Your task to perform on an android device: toggle improve location accuracy Image 0: 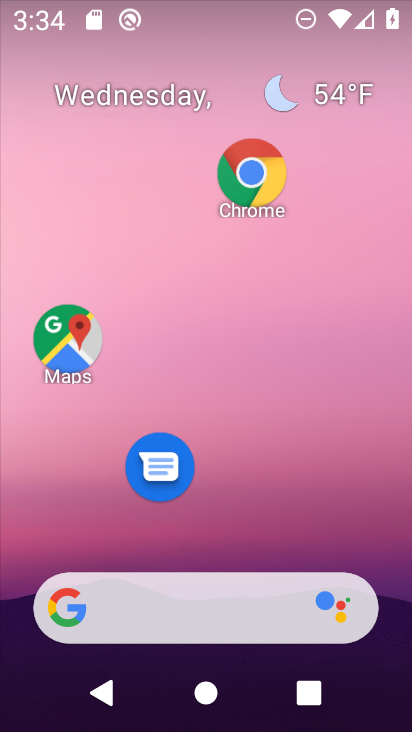
Step 0: drag from (258, 489) to (258, 106)
Your task to perform on an android device: toggle improve location accuracy Image 1: 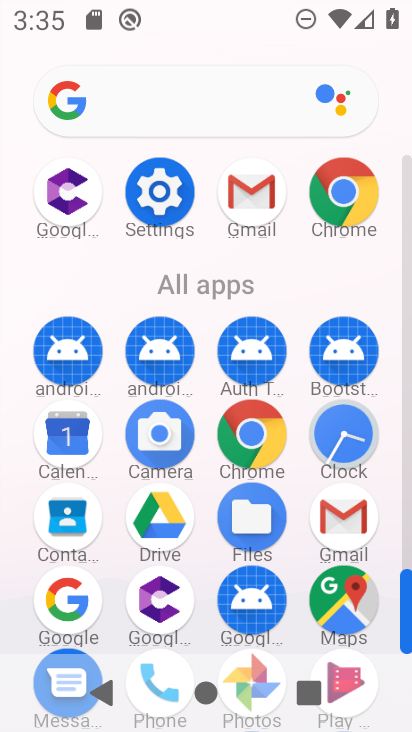
Step 1: click (163, 188)
Your task to perform on an android device: toggle improve location accuracy Image 2: 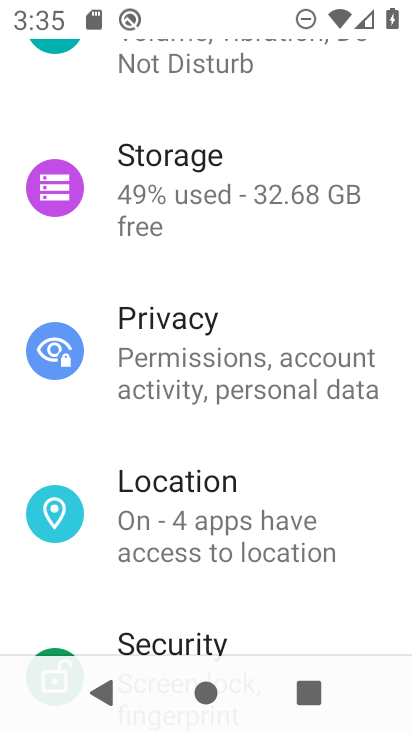
Step 2: click (157, 503)
Your task to perform on an android device: toggle improve location accuracy Image 3: 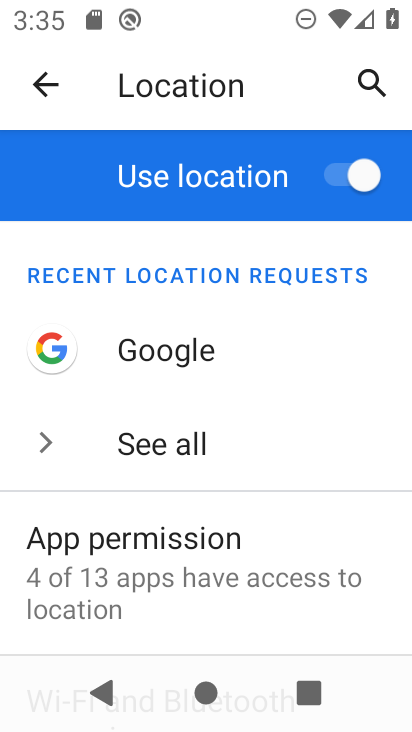
Step 3: drag from (222, 555) to (292, 167)
Your task to perform on an android device: toggle improve location accuracy Image 4: 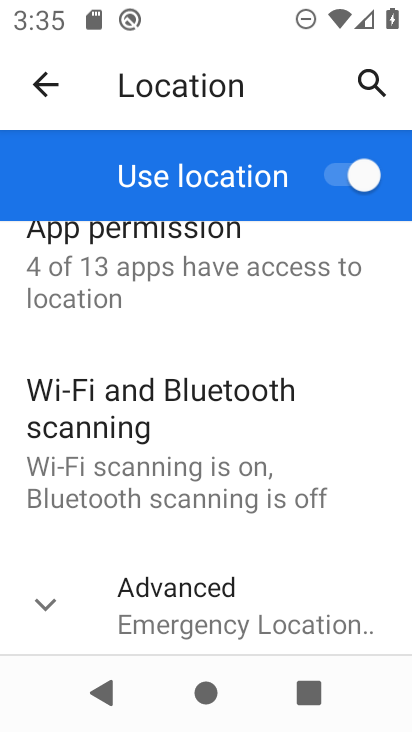
Step 4: drag from (260, 613) to (293, 292)
Your task to perform on an android device: toggle improve location accuracy Image 5: 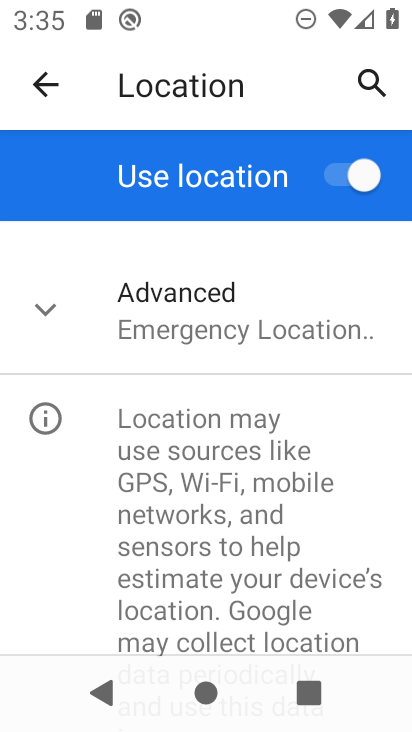
Step 5: click (236, 323)
Your task to perform on an android device: toggle improve location accuracy Image 6: 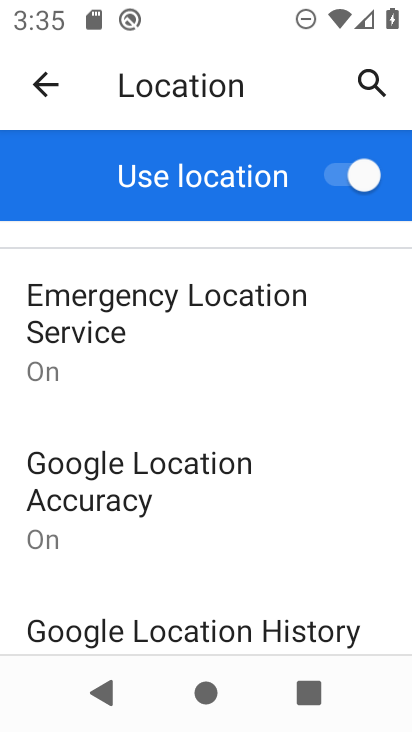
Step 6: click (134, 479)
Your task to perform on an android device: toggle improve location accuracy Image 7: 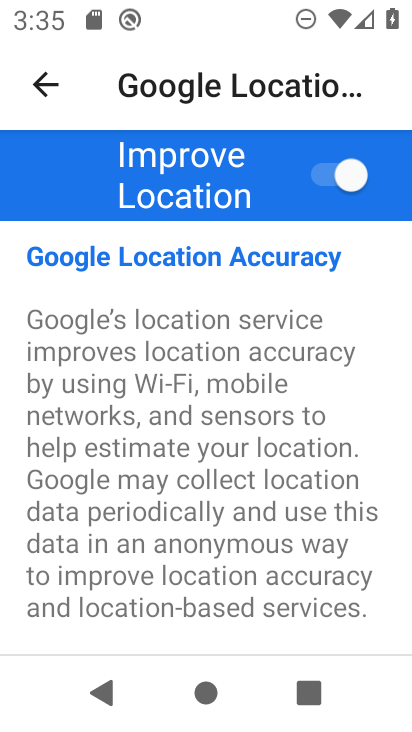
Step 7: drag from (170, 587) to (241, 108)
Your task to perform on an android device: toggle improve location accuracy Image 8: 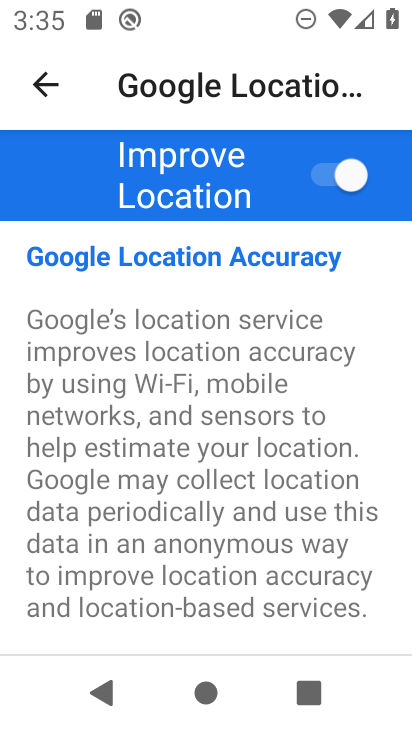
Step 8: click (332, 175)
Your task to perform on an android device: toggle improve location accuracy Image 9: 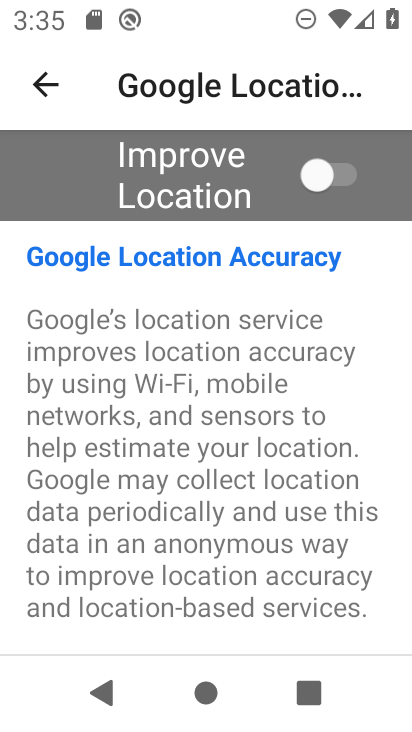
Step 9: task complete